Your task to perform on an android device: Open Reddit.com Image 0: 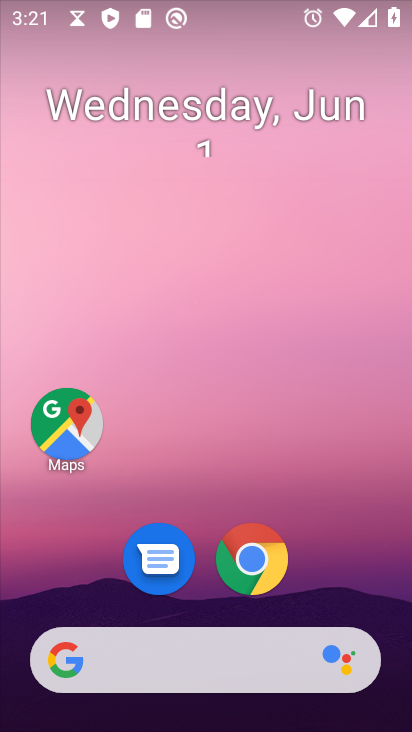
Step 0: click (259, 566)
Your task to perform on an android device: Open Reddit.com Image 1: 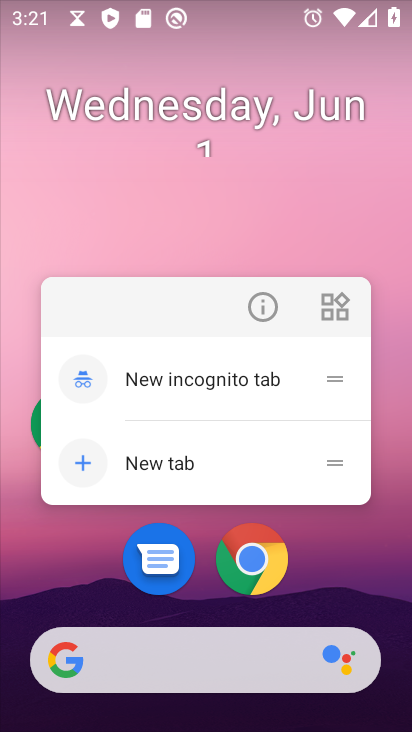
Step 1: click (231, 548)
Your task to perform on an android device: Open Reddit.com Image 2: 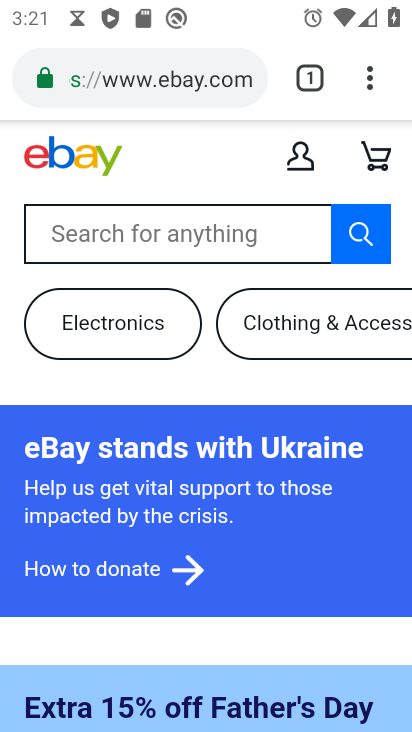
Step 2: click (172, 75)
Your task to perform on an android device: Open Reddit.com Image 3: 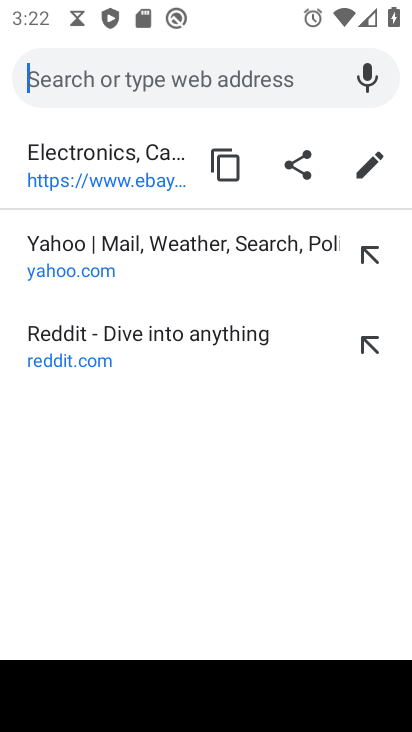
Step 3: type "Reddit.com"
Your task to perform on an android device: Open Reddit.com Image 4: 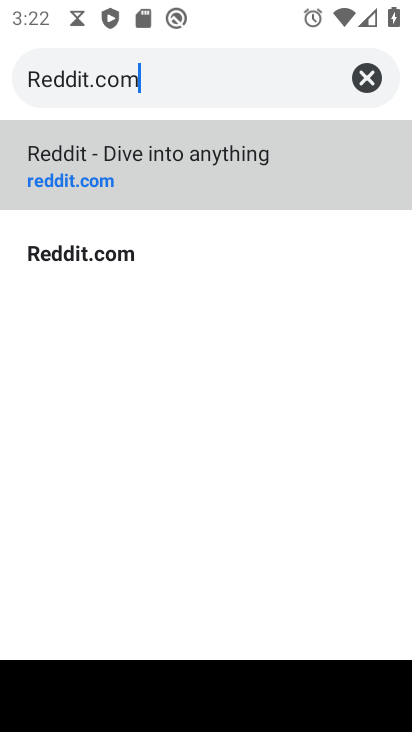
Step 4: click (216, 175)
Your task to perform on an android device: Open Reddit.com Image 5: 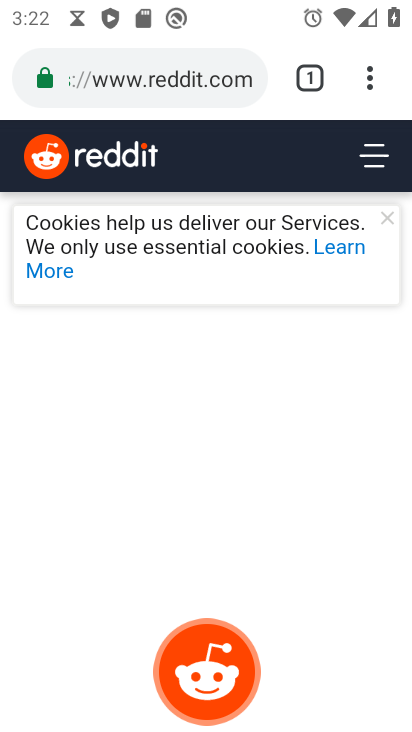
Step 5: task complete